Your task to perform on an android device: Set the phone to "Do not disturb". Image 0: 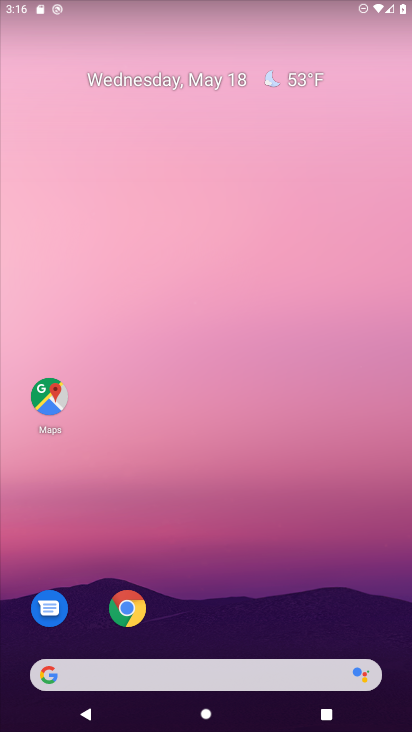
Step 0: drag from (216, 670) to (239, 343)
Your task to perform on an android device: Set the phone to "Do not disturb". Image 1: 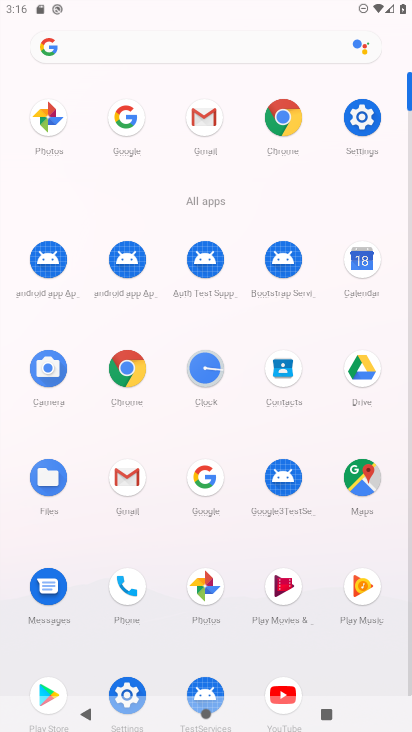
Step 1: click (357, 120)
Your task to perform on an android device: Set the phone to "Do not disturb". Image 2: 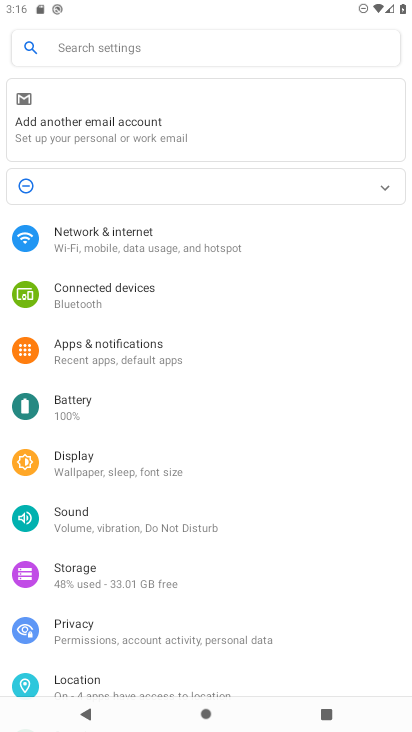
Step 2: click (118, 521)
Your task to perform on an android device: Set the phone to "Do not disturb". Image 3: 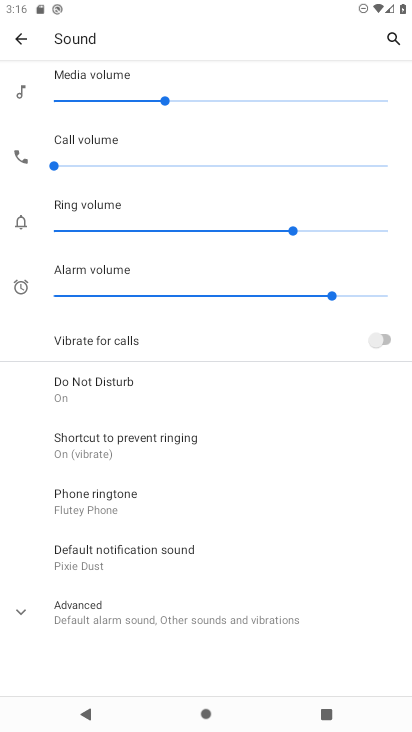
Step 3: drag from (96, 589) to (129, 349)
Your task to perform on an android device: Set the phone to "Do not disturb". Image 4: 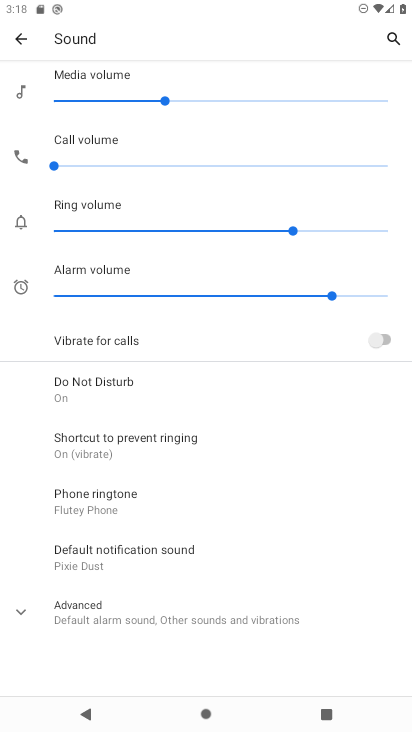
Step 4: click (23, 35)
Your task to perform on an android device: Set the phone to "Do not disturb". Image 5: 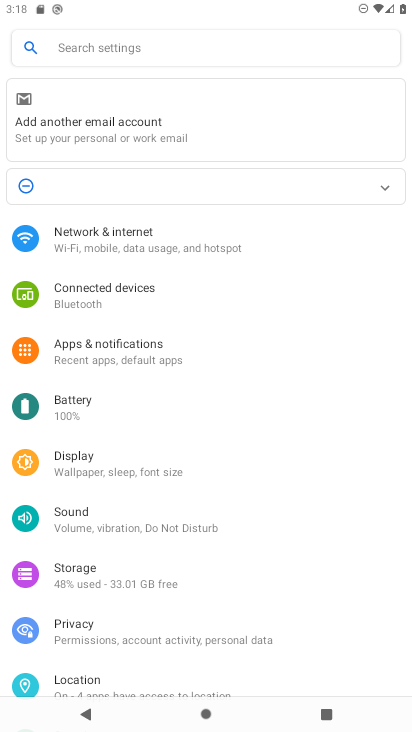
Step 5: task complete